Your task to perform on an android device: stop showing notifications on the lock screen Image 0: 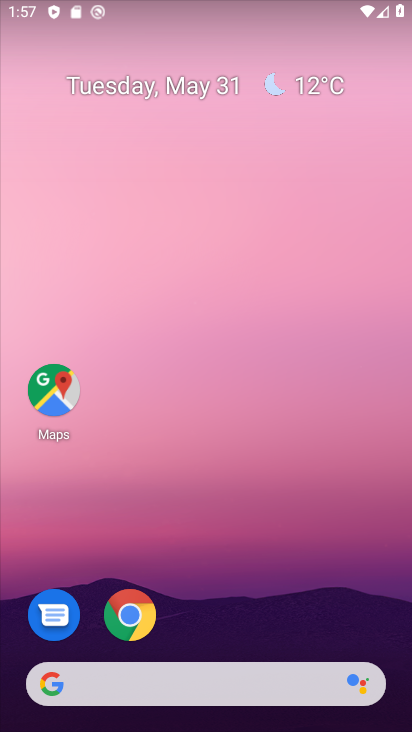
Step 0: drag from (191, 637) to (292, 73)
Your task to perform on an android device: stop showing notifications on the lock screen Image 1: 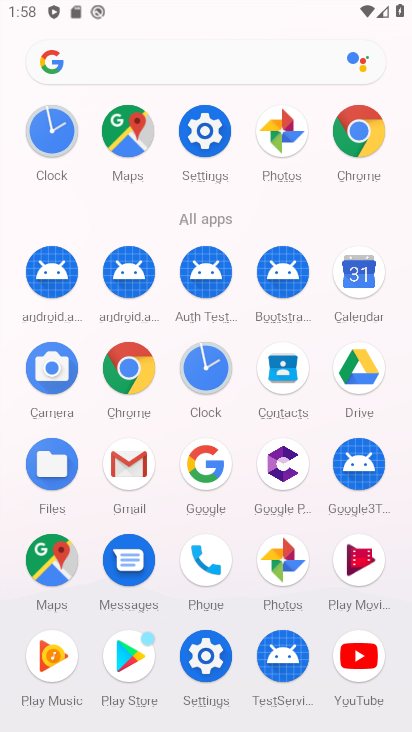
Step 1: click (192, 650)
Your task to perform on an android device: stop showing notifications on the lock screen Image 2: 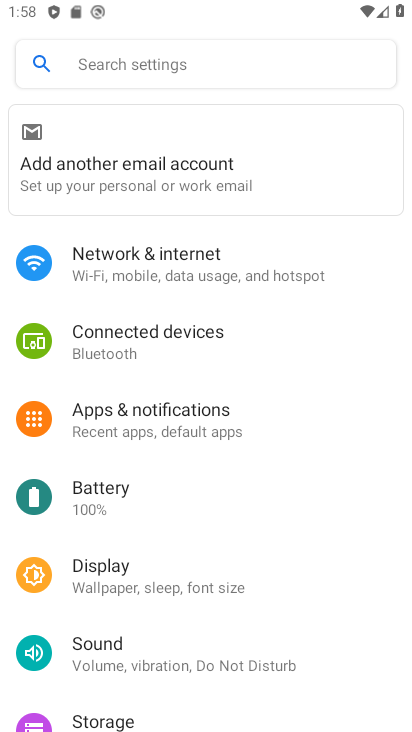
Step 2: drag from (101, 558) to (175, 353)
Your task to perform on an android device: stop showing notifications on the lock screen Image 3: 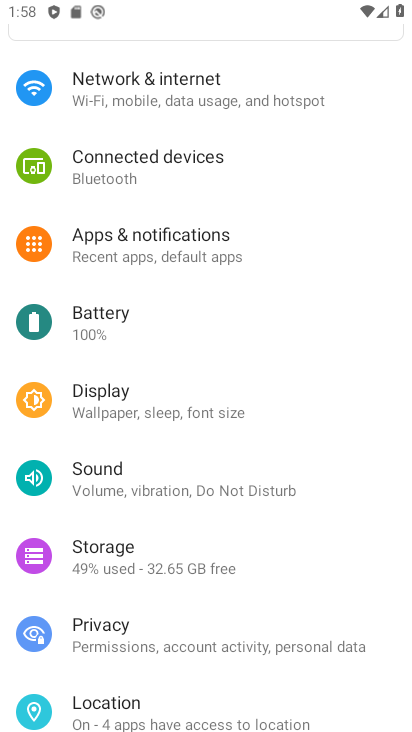
Step 3: click (180, 259)
Your task to perform on an android device: stop showing notifications on the lock screen Image 4: 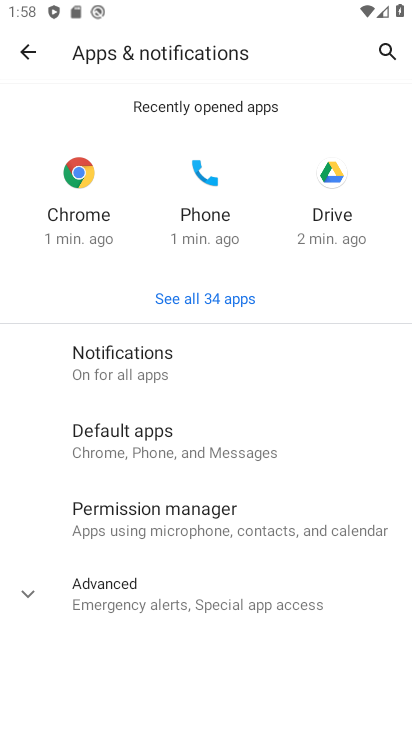
Step 4: click (212, 378)
Your task to perform on an android device: stop showing notifications on the lock screen Image 5: 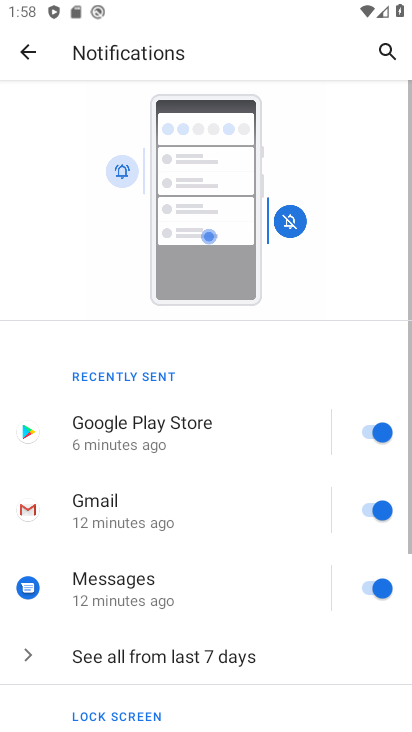
Step 5: drag from (137, 603) to (234, 213)
Your task to perform on an android device: stop showing notifications on the lock screen Image 6: 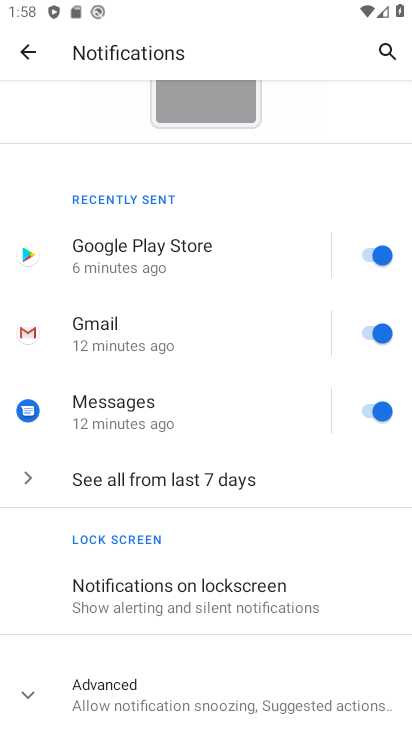
Step 6: click (235, 591)
Your task to perform on an android device: stop showing notifications on the lock screen Image 7: 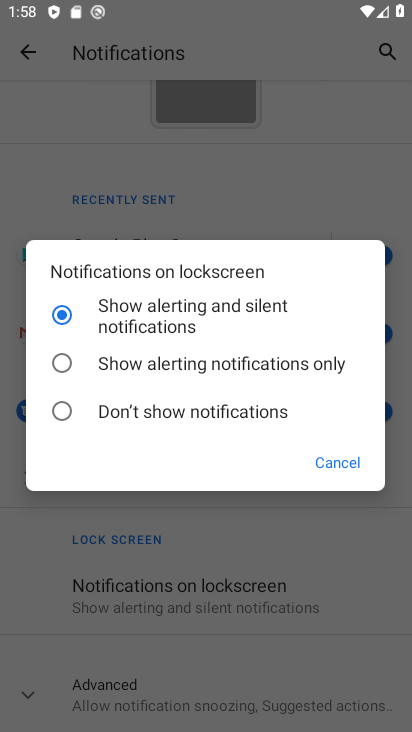
Step 7: click (123, 417)
Your task to perform on an android device: stop showing notifications on the lock screen Image 8: 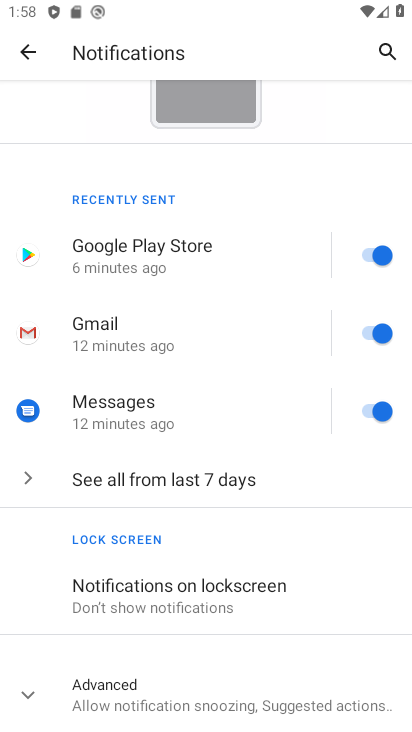
Step 8: task complete